Your task to perform on an android device: Open Google Image 0: 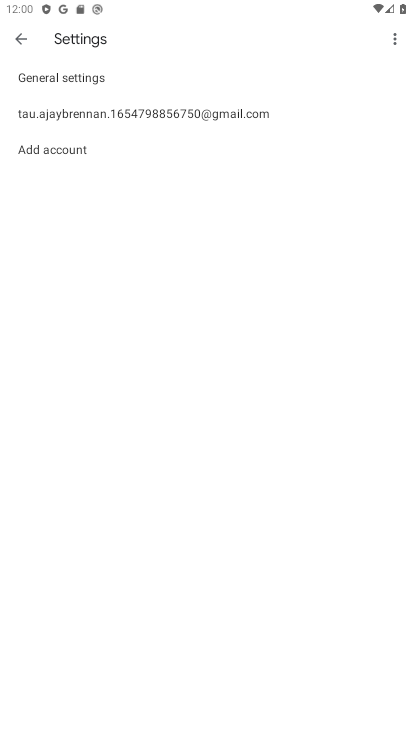
Step 0: press home button
Your task to perform on an android device: Open Google Image 1: 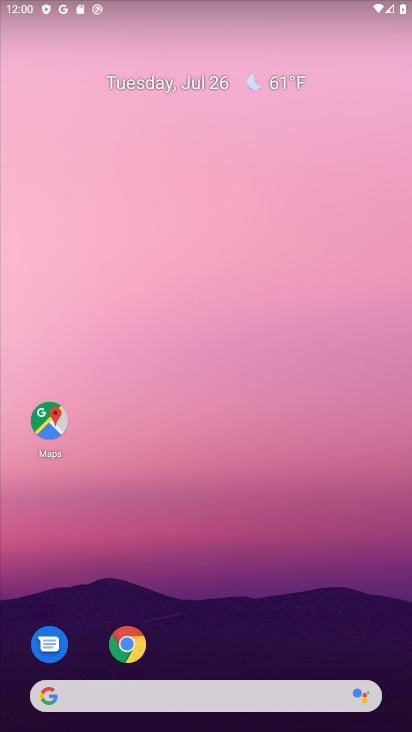
Step 1: drag from (263, 635) to (217, 16)
Your task to perform on an android device: Open Google Image 2: 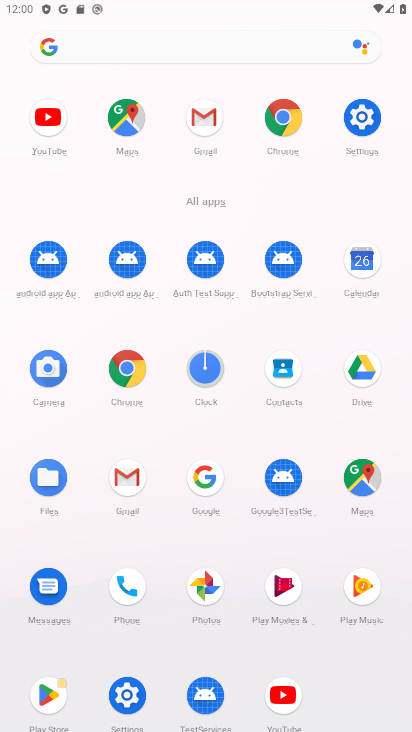
Step 2: click (205, 475)
Your task to perform on an android device: Open Google Image 3: 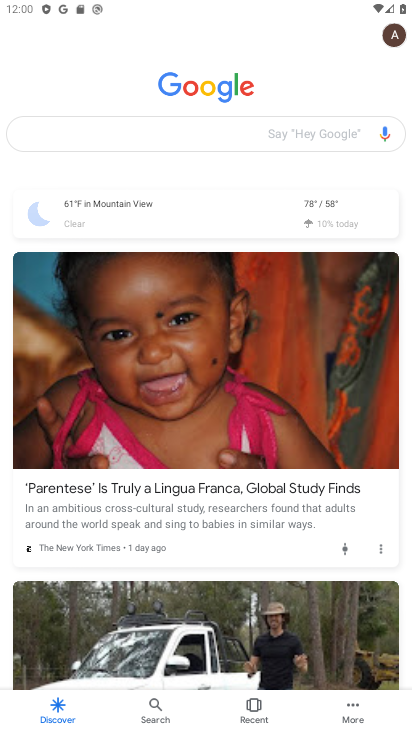
Step 3: task complete